Your task to perform on an android device: check data usage Image 0: 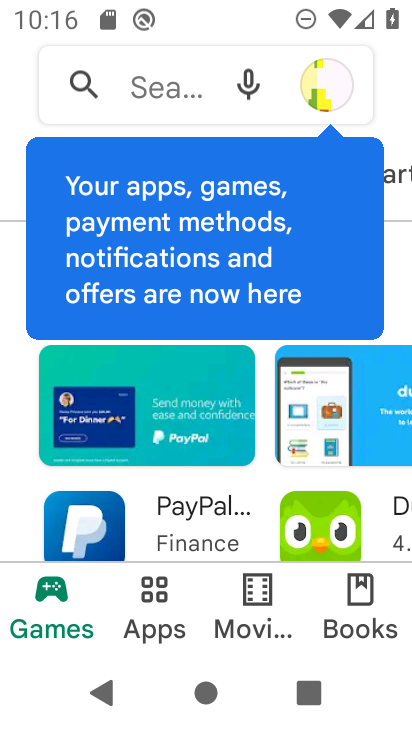
Step 0: press home button
Your task to perform on an android device: check data usage Image 1: 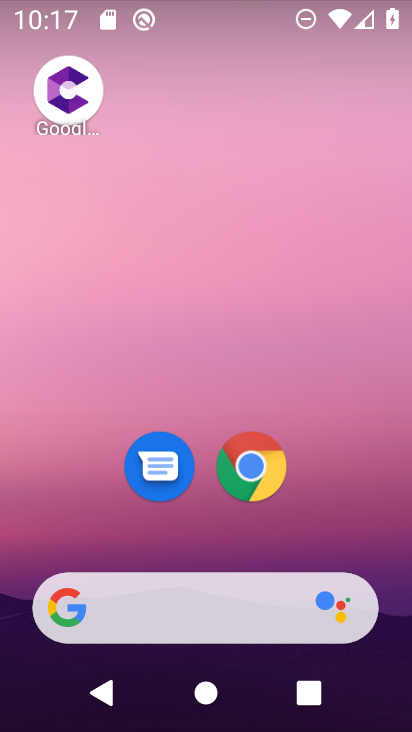
Step 1: drag from (179, 442) to (233, 32)
Your task to perform on an android device: check data usage Image 2: 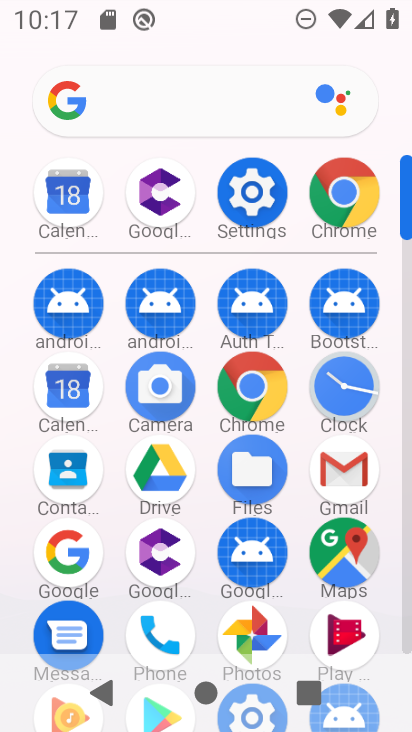
Step 2: click (251, 215)
Your task to perform on an android device: check data usage Image 3: 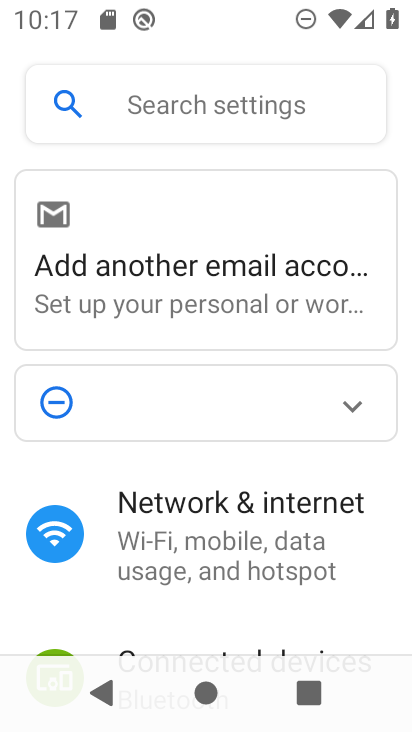
Step 3: click (201, 563)
Your task to perform on an android device: check data usage Image 4: 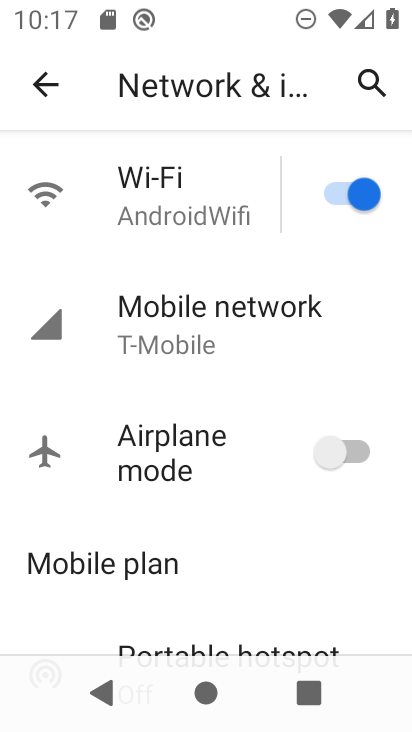
Step 4: click (201, 336)
Your task to perform on an android device: check data usage Image 5: 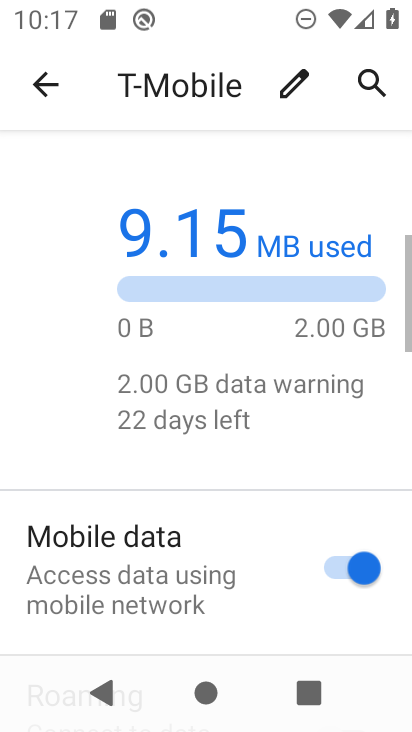
Step 5: drag from (174, 586) to (255, 46)
Your task to perform on an android device: check data usage Image 6: 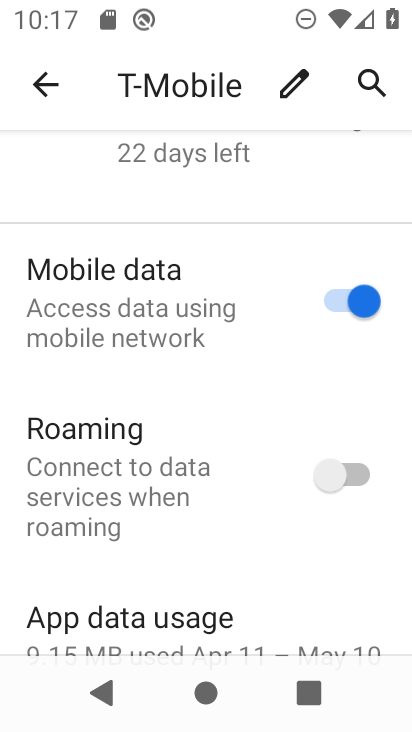
Step 6: drag from (202, 565) to (243, 132)
Your task to perform on an android device: check data usage Image 7: 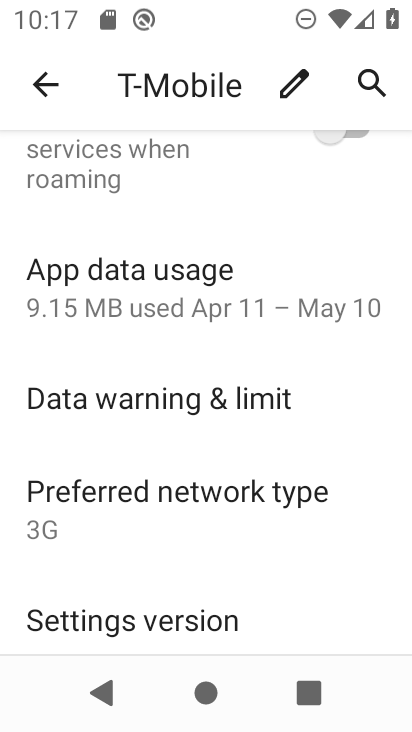
Step 7: click (83, 290)
Your task to perform on an android device: check data usage Image 8: 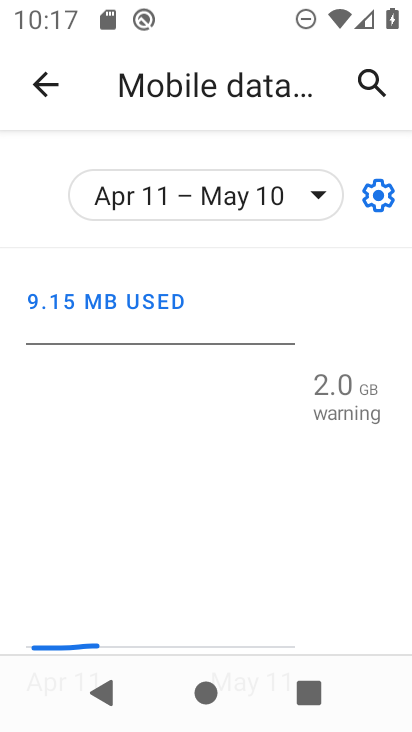
Step 8: task complete